Your task to perform on an android device: turn notification dots off Image 0: 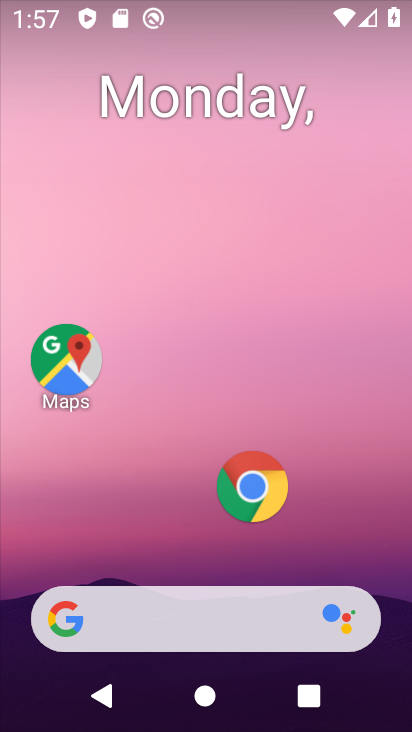
Step 0: drag from (151, 555) to (292, 21)
Your task to perform on an android device: turn notification dots off Image 1: 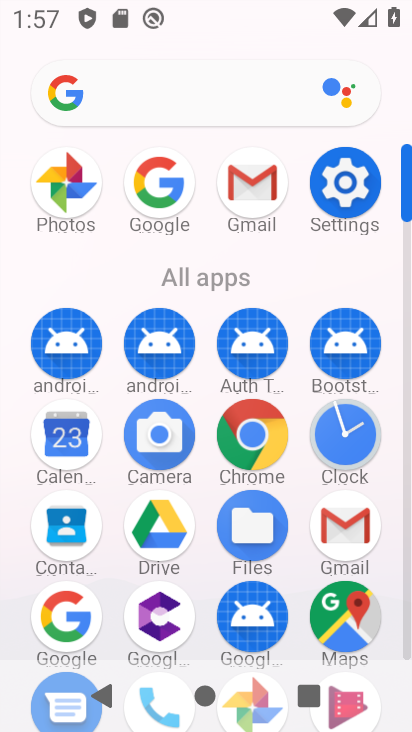
Step 1: click (344, 183)
Your task to perform on an android device: turn notification dots off Image 2: 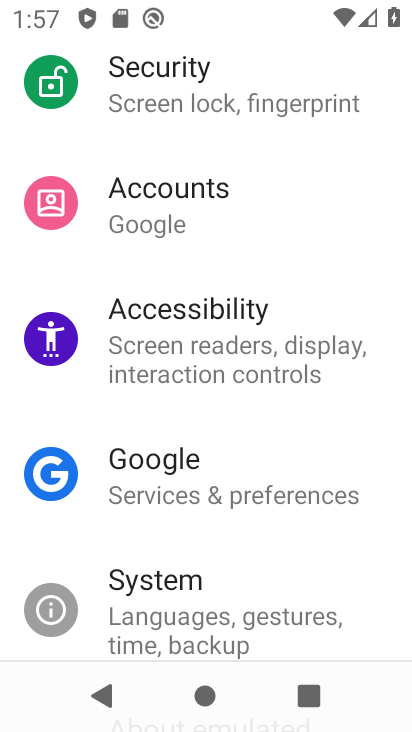
Step 2: drag from (310, 202) to (304, 444)
Your task to perform on an android device: turn notification dots off Image 3: 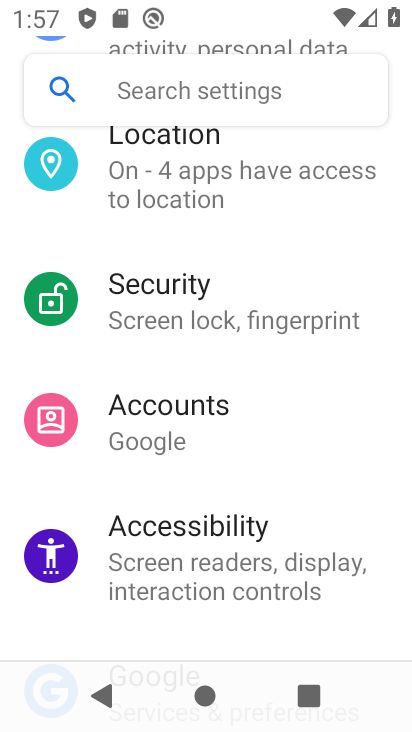
Step 3: drag from (277, 263) to (290, 444)
Your task to perform on an android device: turn notification dots off Image 4: 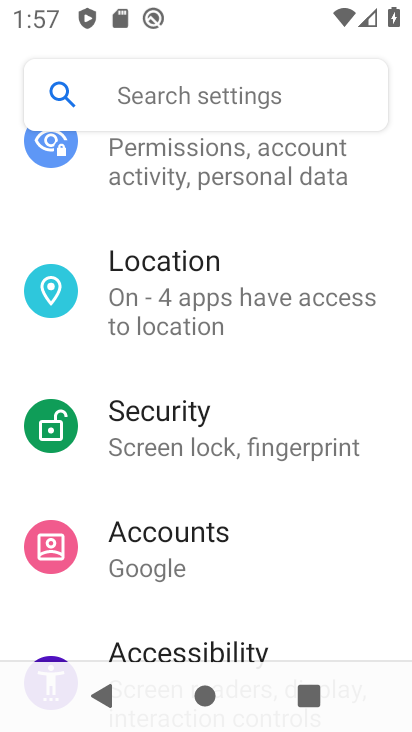
Step 4: drag from (198, 200) to (234, 448)
Your task to perform on an android device: turn notification dots off Image 5: 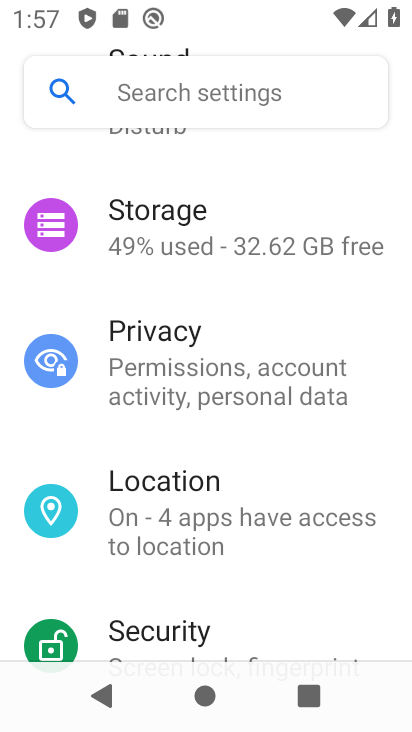
Step 5: drag from (237, 274) to (264, 481)
Your task to perform on an android device: turn notification dots off Image 6: 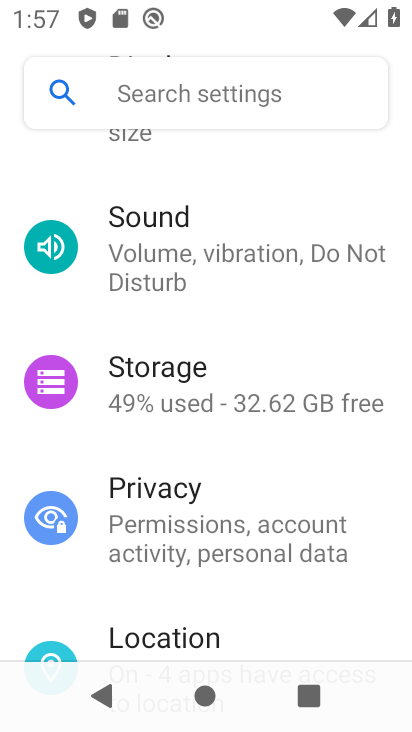
Step 6: drag from (260, 275) to (307, 476)
Your task to perform on an android device: turn notification dots off Image 7: 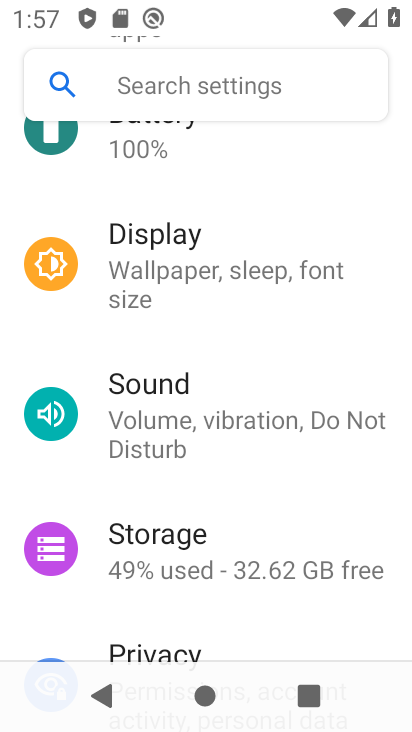
Step 7: drag from (279, 251) to (327, 475)
Your task to perform on an android device: turn notification dots off Image 8: 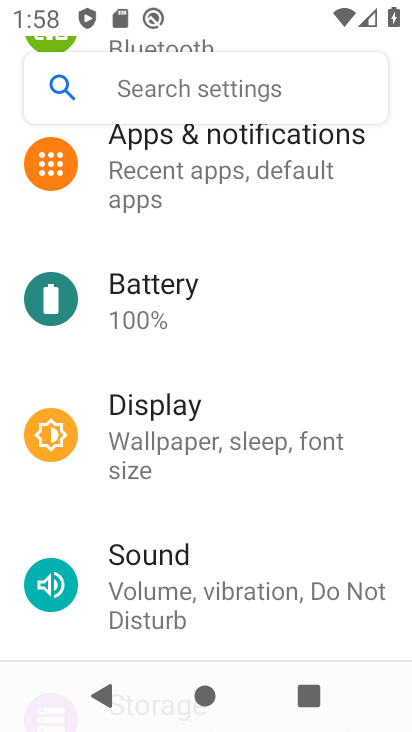
Step 8: click (244, 183)
Your task to perform on an android device: turn notification dots off Image 9: 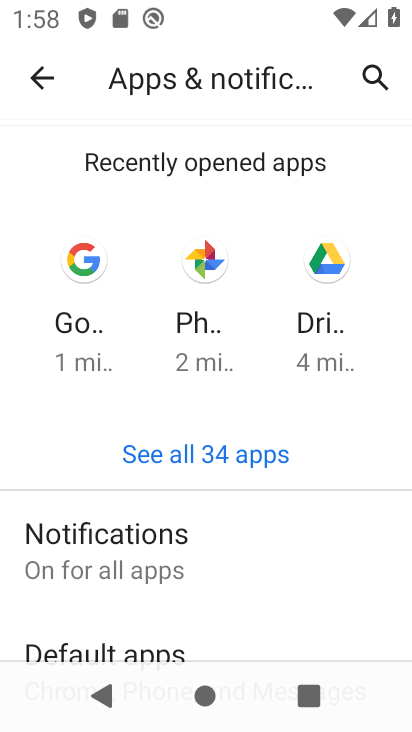
Step 9: click (175, 580)
Your task to perform on an android device: turn notification dots off Image 10: 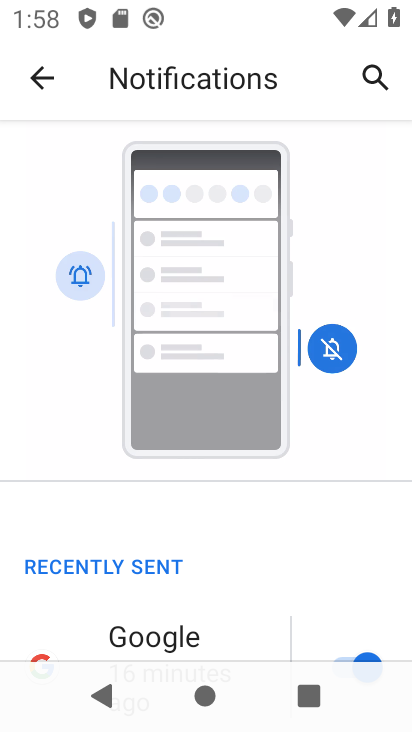
Step 10: drag from (194, 543) to (300, 164)
Your task to perform on an android device: turn notification dots off Image 11: 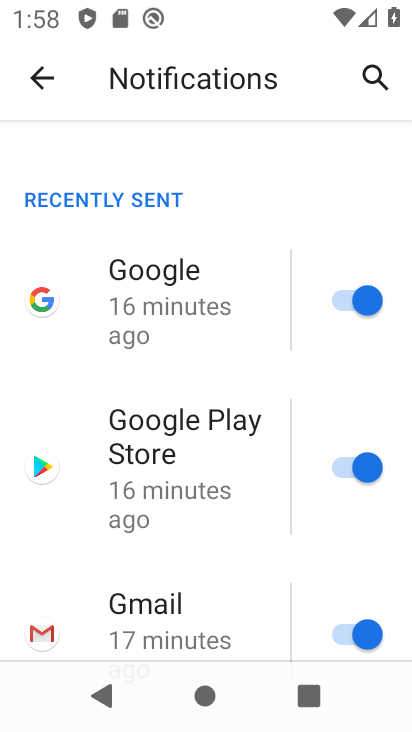
Step 11: drag from (244, 524) to (266, 105)
Your task to perform on an android device: turn notification dots off Image 12: 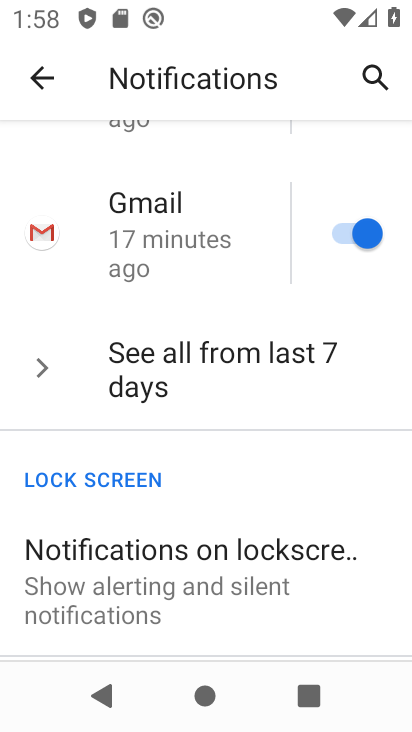
Step 12: drag from (213, 586) to (237, 314)
Your task to perform on an android device: turn notification dots off Image 13: 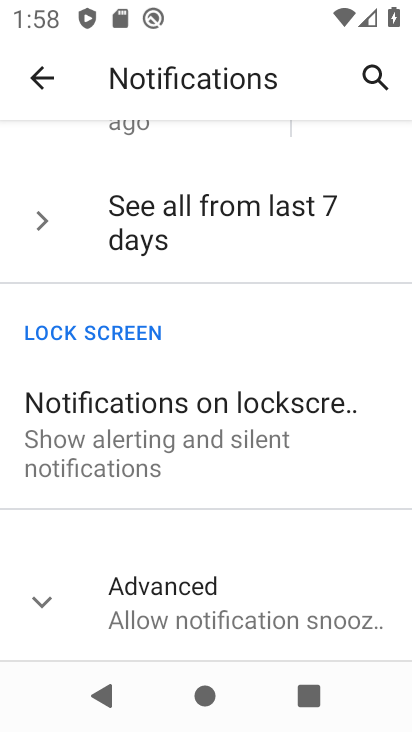
Step 13: click (191, 618)
Your task to perform on an android device: turn notification dots off Image 14: 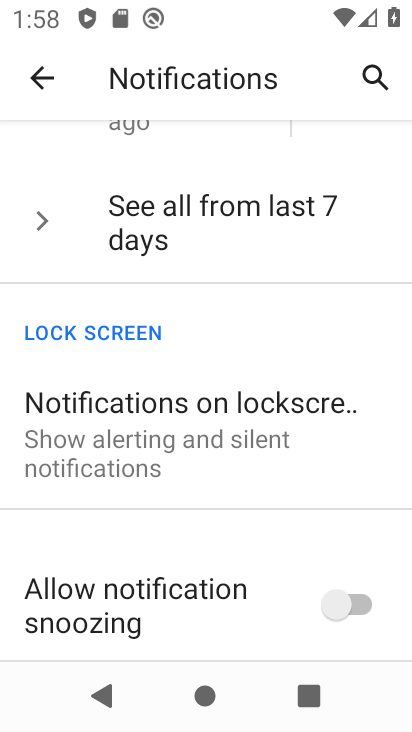
Step 14: drag from (160, 613) to (226, 250)
Your task to perform on an android device: turn notification dots off Image 15: 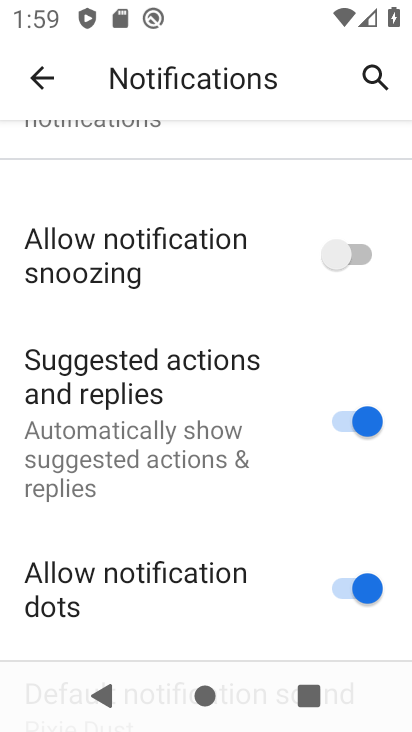
Step 15: click (350, 588)
Your task to perform on an android device: turn notification dots off Image 16: 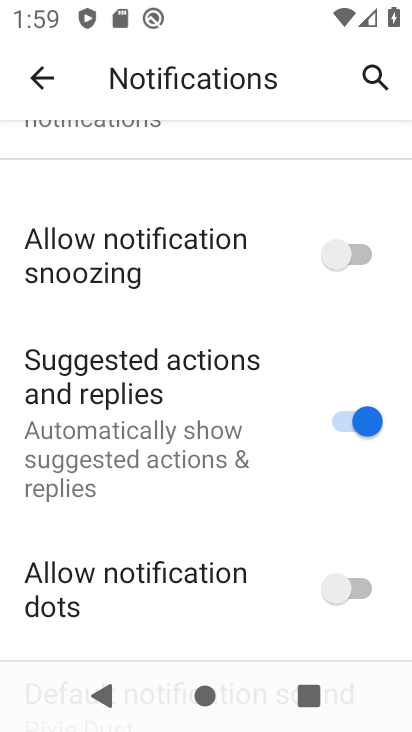
Step 16: task complete